Your task to perform on an android device: Go to Amazon Image 0: 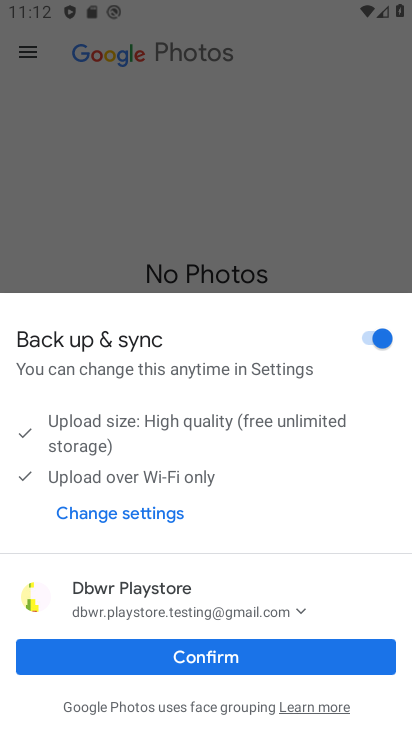
Step 0: press home button
Your task to perform on an android device: Go to Amazon Image 1: 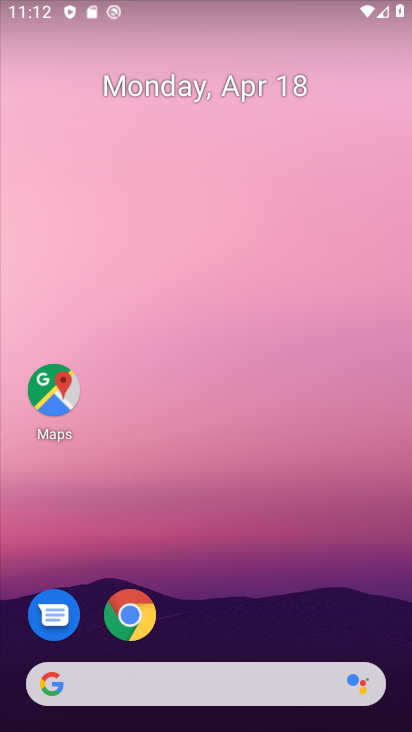
Step 1: click (126, 612)
Your task to perform on an android device: Go to Amazon Image 2: 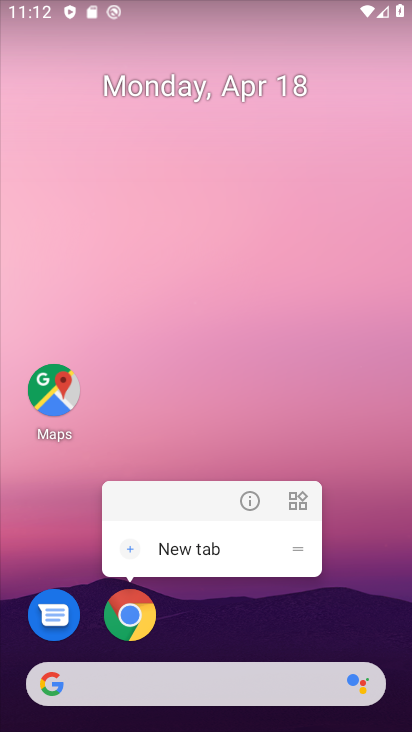
Step 2: click (146, 615)
Your task to perform on an android device: Go to Amazon Image 3: 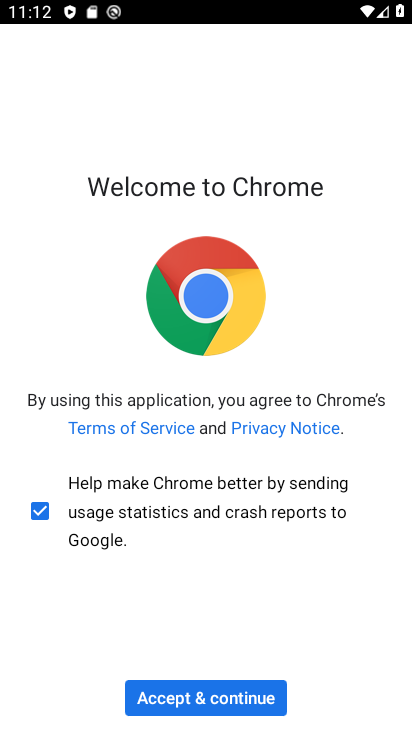
Step 3: click (232, 695)
Your task to perform on an android device: Go to Amazon Image 4: 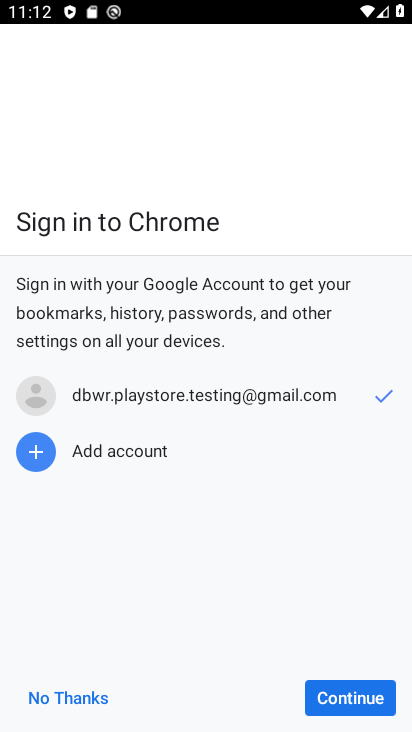
Step 4: click (345, 694)
Your task to perform on an android device: Go to Amazon Image 5: 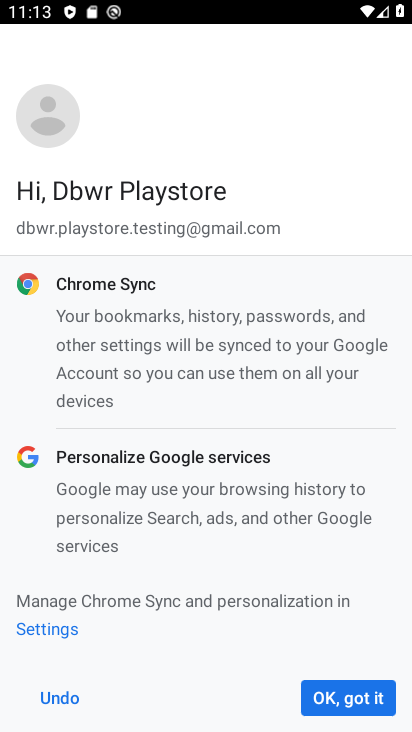
Step 5: click (352, 702)
Your task to perform on an android device: Go to Amazon Image 6: 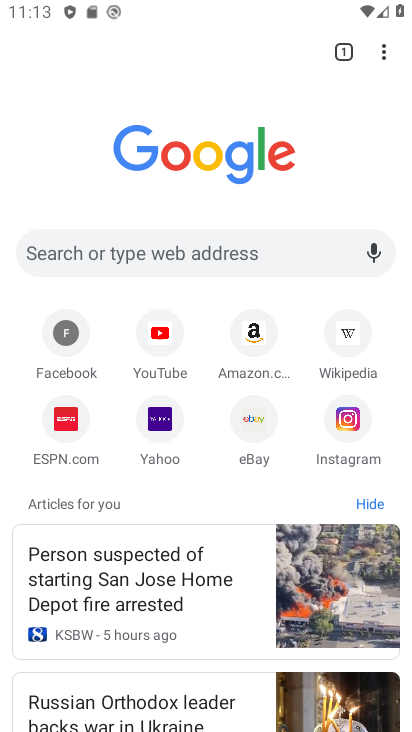
Step 6: click (264, 335)
Your task to perform on an android device: Go to Amazon Image 7: 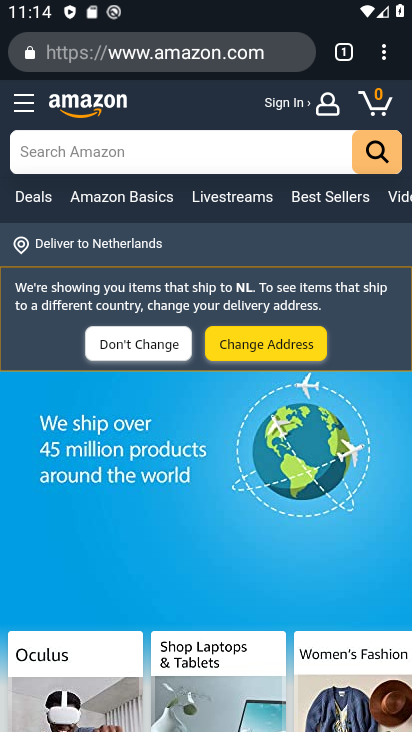
Step 7: task complete